Your task to perform on an android device: remove spam from my inbox in the gmail app Image 0: 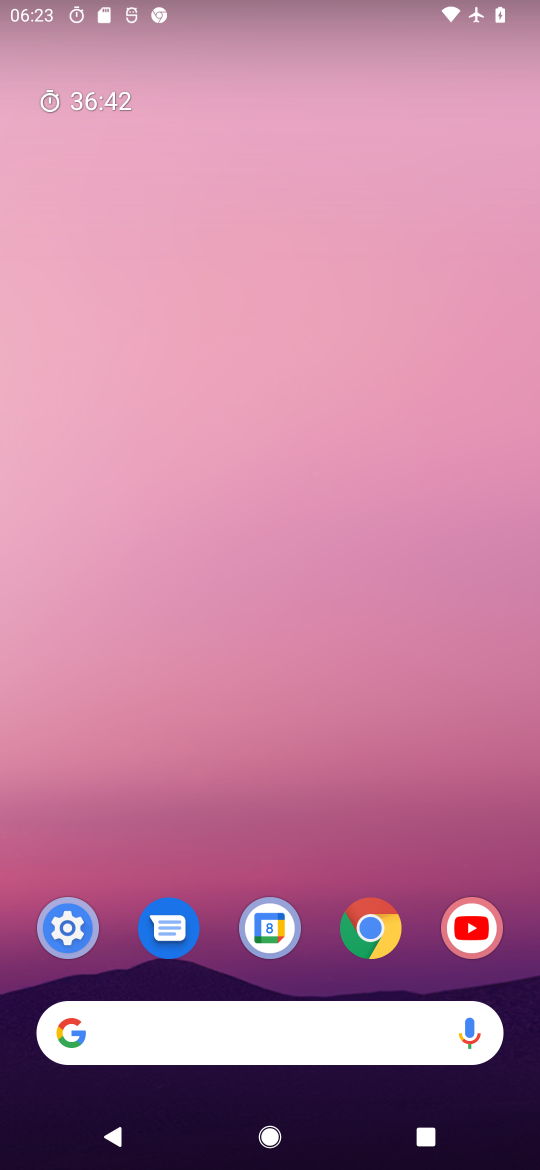
Step 0: drag from (216, 909) to (197, 114)
Your task to perform on an android device: remove spam from my inbox in the gmail app Image 1: 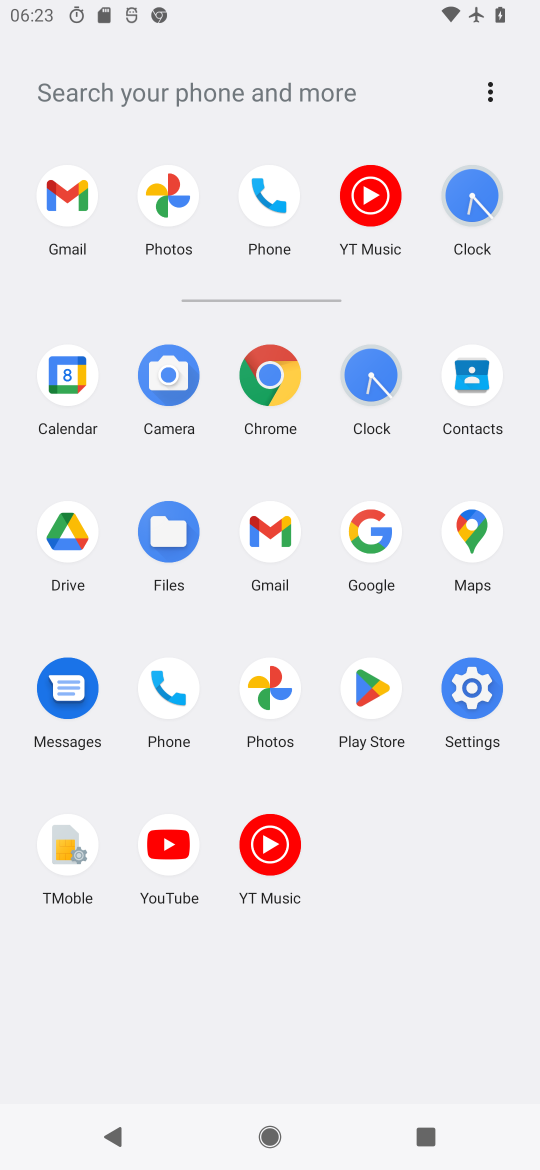
Step 1: click (286, 545)
Your task to perform on an android device: remove spam from my inbox in the gmail app Image 2: 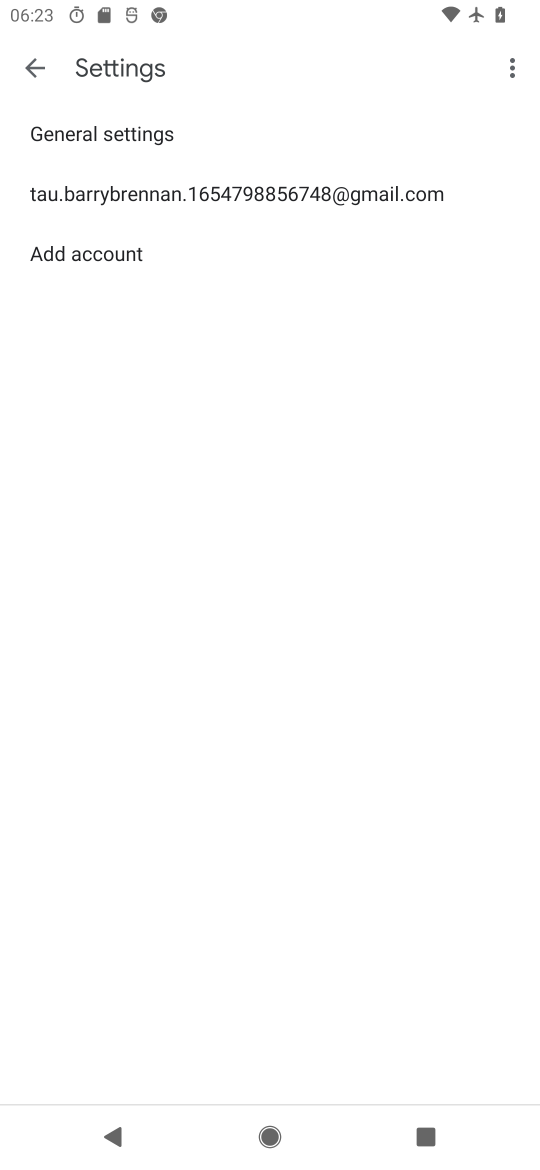
Step 2: click (27, 67)
Your task to perform on an android device: remove spam from my inbox in the gmail app Image 3: 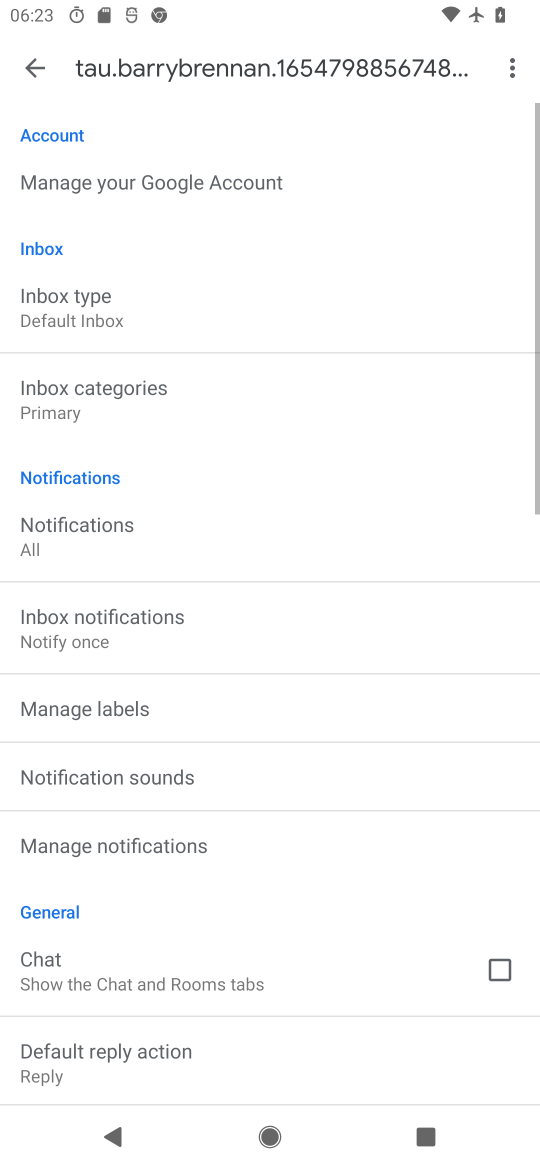
Step 3: click (26, 69)
Your task to perform on an android device: remove spam from my inbox in the gmail app Image 4: 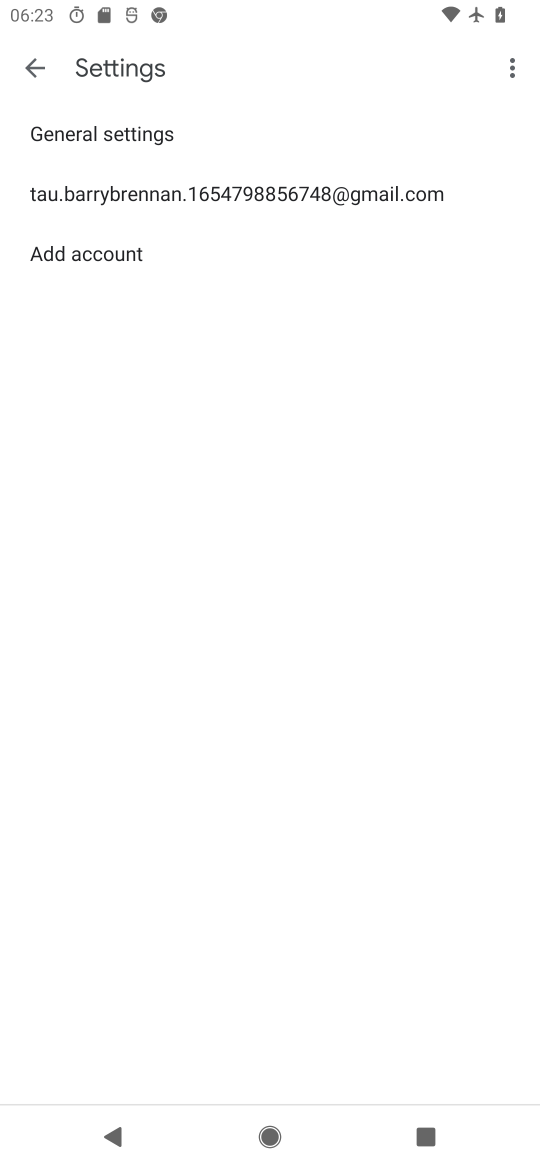
Step 4: click (27, 71)
Your task to perform on an android device: remove spam from my inbox in the gmail app Image 5: 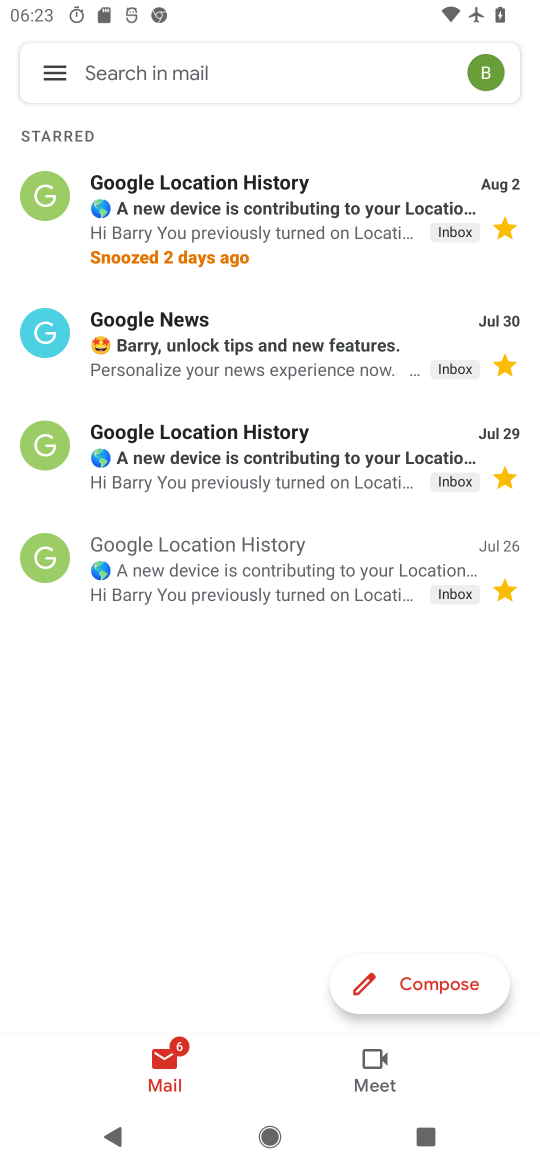
Step 5: click (29, 69)
Your task to perform on an android device: remove spam from my inbox in the gmail app Image 6: 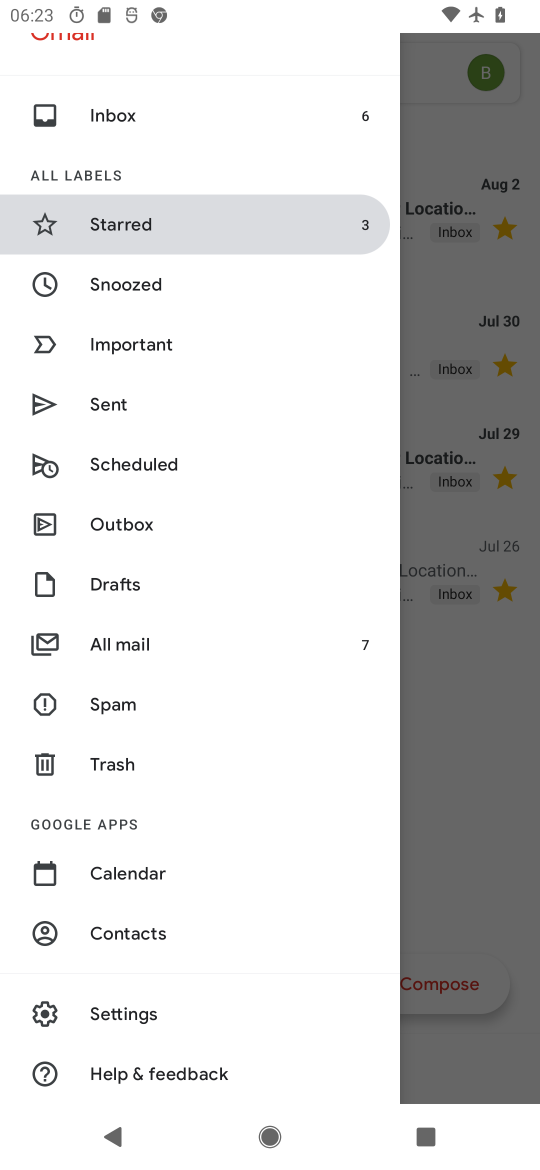
Step 6: click (124, 698)
Your task to perform on an android device: remove spam from my inbox in the gmail app Image 7: 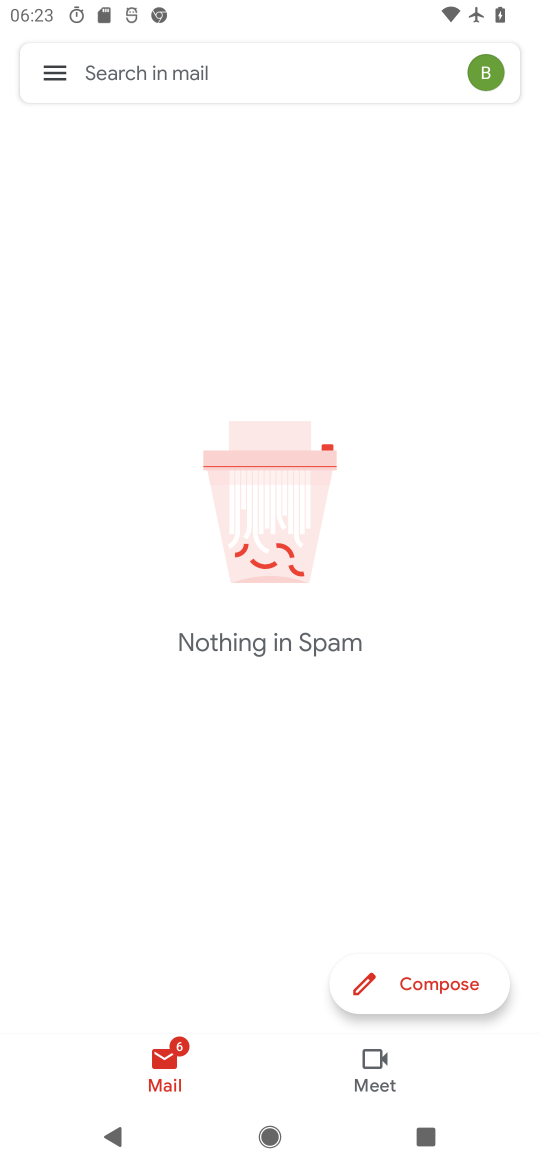
Step 7: task complete